Your task to perform on an android device: turn on translation in the chrome app Image 0: 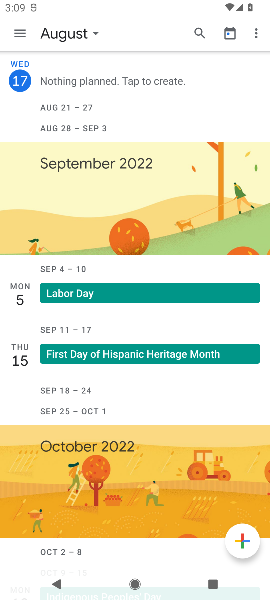
Step 0: press home button
Your task to perform on an android device: turn on translation in the chrome app Image 1: 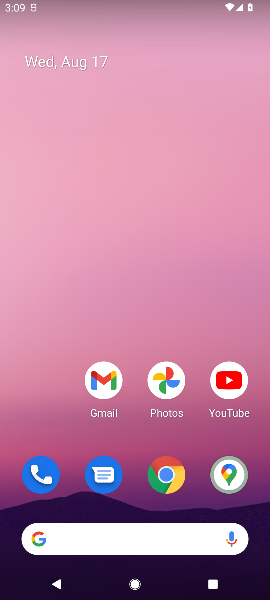
Step 1: click (155, 476)
Your task to perform on an android device: turn on translation in the chrome app Image 2: 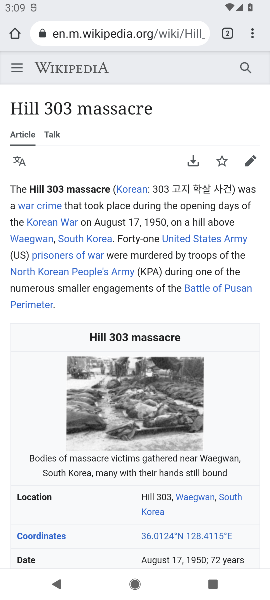
Step 2: click (248, 29)
Your task to perform on an android device: turn on translation in the chrome app Image 3: 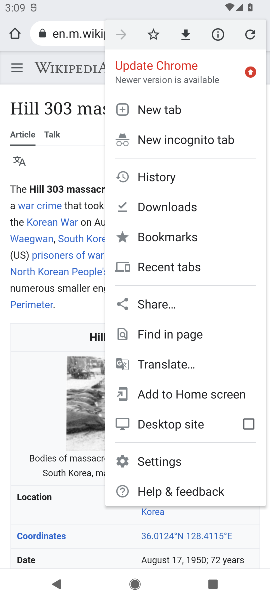
Step 3: click (152, 461)
Your task to perform on an android device: turn on translation in the chrome app Image 4: 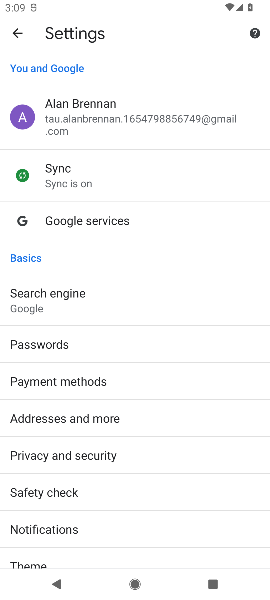
Step 4: drag from (152, 461) to (69, 47)
Your task to perform on an android device: turn on translation in the chrome app Image 5: 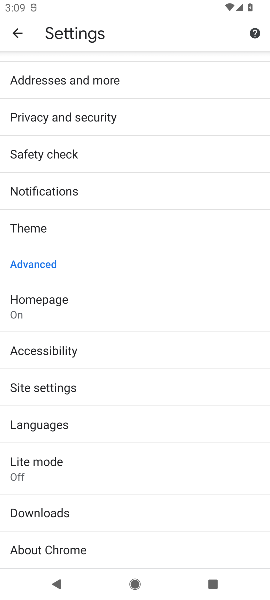
Step 5: click (20, 425)
Your task to perform on an android device: turn on translation in the chrome app Image 6: 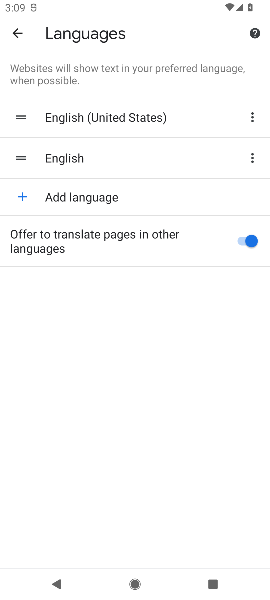
Step 6: task complete